Your task to perform on an android device: turn on javascript in the chrome app Image 0: 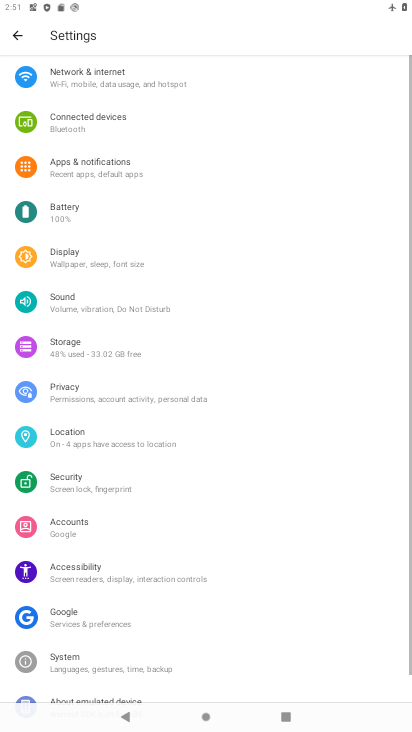
Step 0: press home button
Your task to perform on an android device: turn on javascript in the chrome app Image 1: 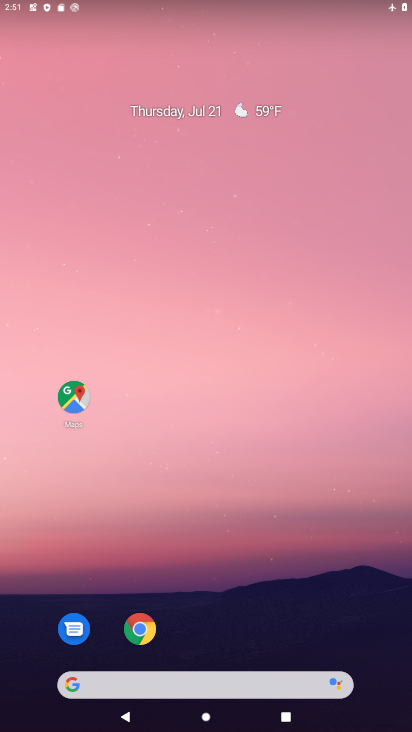
Step 1: drag from (237, 726) to (259, 195)
Your task to perform on an android device: turn on javascript in the chrome app Image 2: 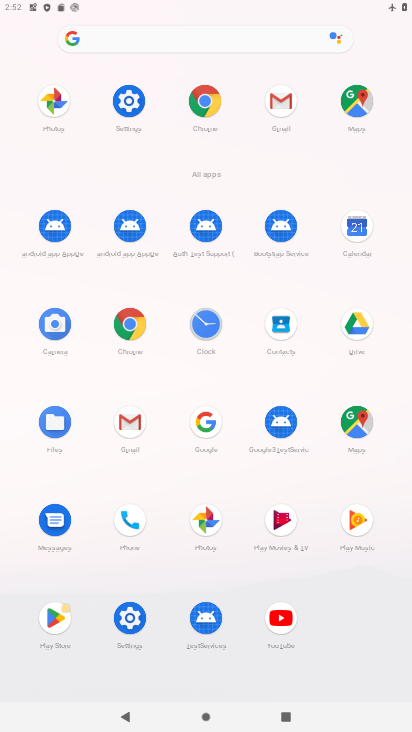
Step 2: click (124, 332)
Your task to perform on an android device: turn on javascript in the chrome app Image 3: 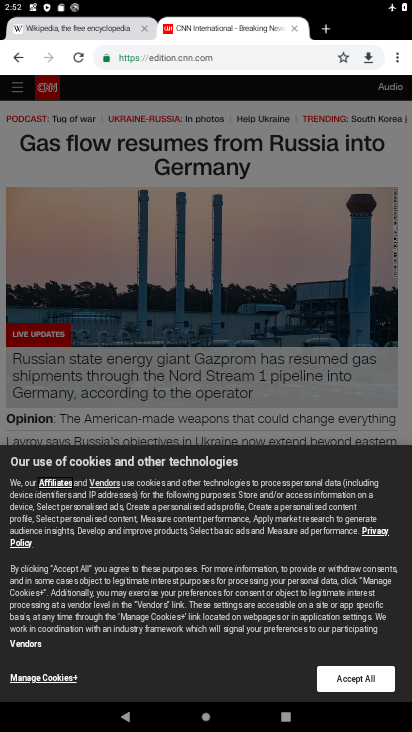
Step 3: click (396, 57)
Your task to perform on an android device: turn on javascript in the chrome app Image 4: 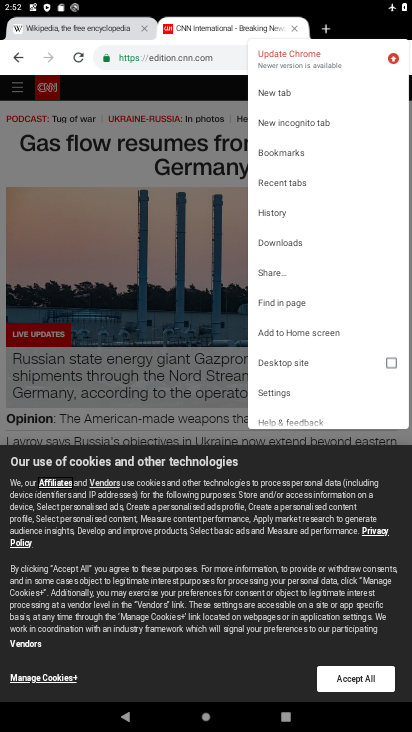
Step 4: click (276, 391)
Your task to perform on an android device: turn on javascript in the chrome app Image 5: 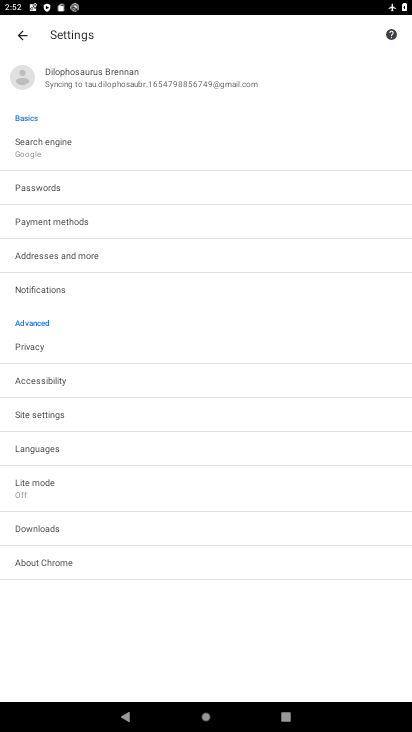
Step 5: click (38, 415)
Your task to perform on an android device: turn on javascript in the chrome app Image 6: 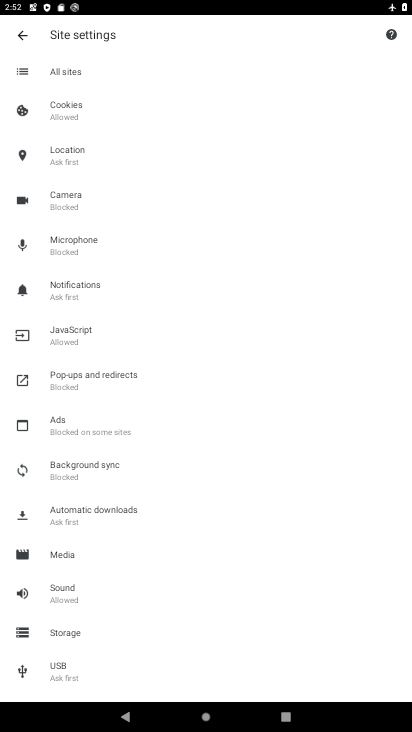
Step 6: click (59, 340)
Your task to perform on an android device: turn on javascript in the chrome app Image 7: 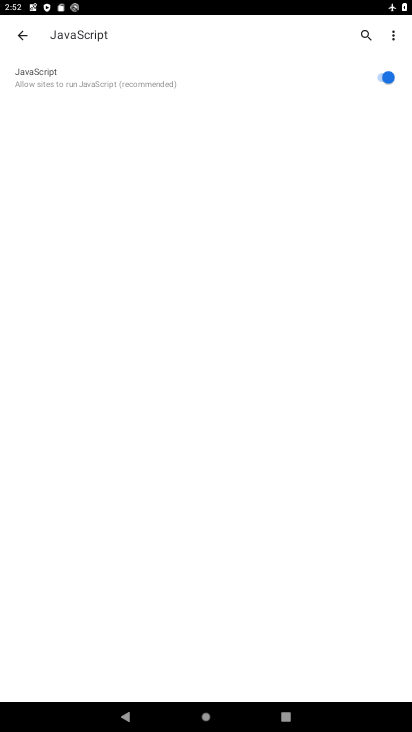
Step 7: task complete